Your task to perform on an android device: Open ESPN.com Image 0: 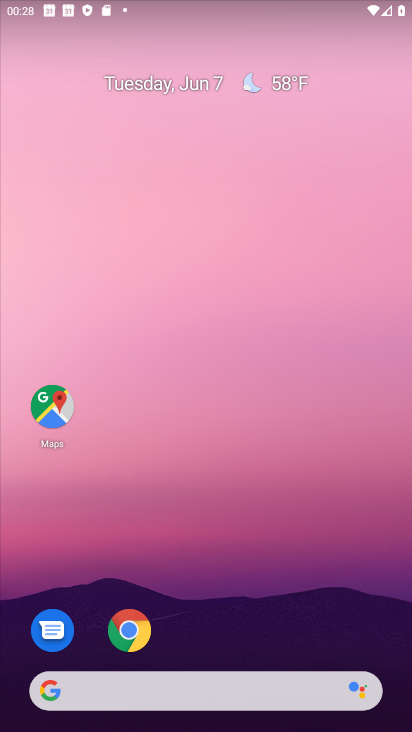
Step 0: drag from (262, 585) to (265, 110)
Your task to perform on an android device: Open ESPN.com Image 1: 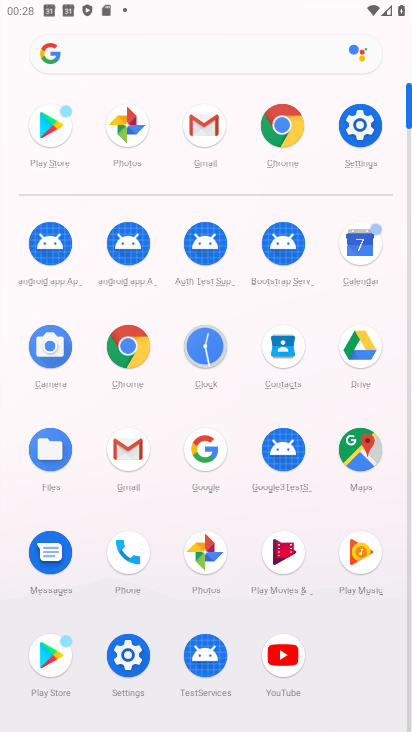
Step 1: click (135, 350)
Your task to perform on an android device: Open ESPN.com Image 2: 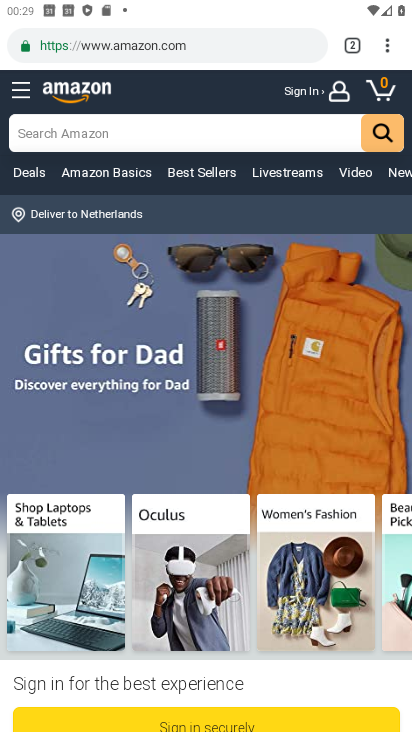
Step 2: click (186, 38)
Your task to perform on an android device: Open ESPN.com Image 3: 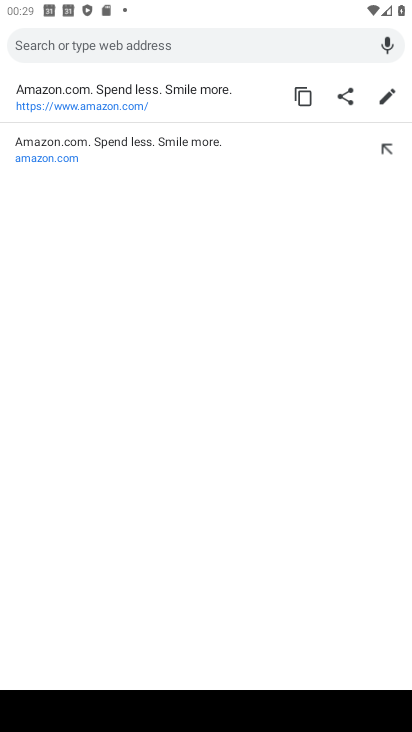
Step 3: type "espn.com"
Your task to perform on an android device: Open ESPN.com Image 4: 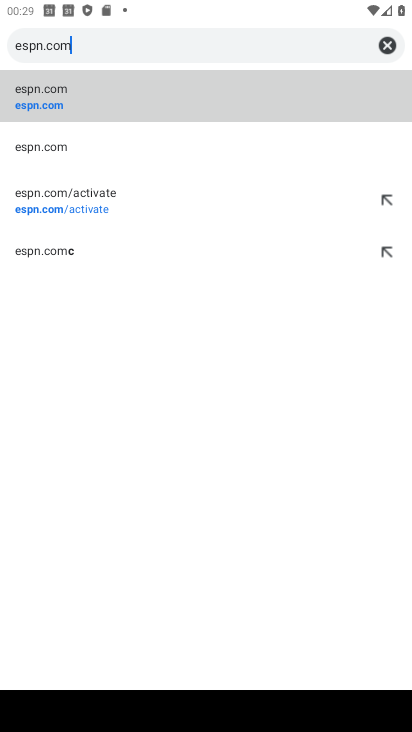
Step 4: click (216, 97)
Your task to perform on an android device: Open ESPN.com Image 5: 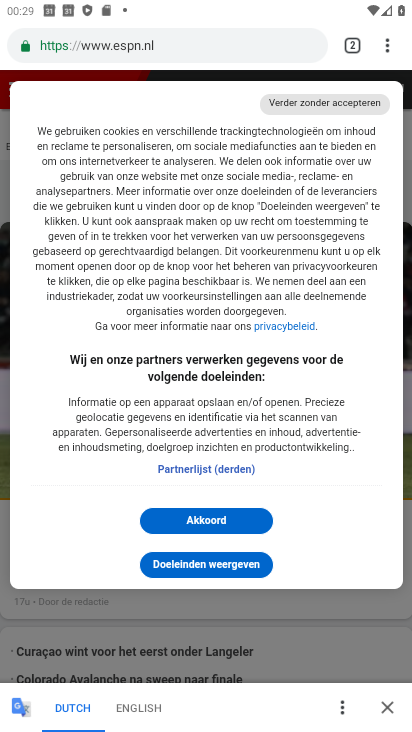
Step 5: task complete